Your task to perform on an android device: Go to Google maps Image 0: 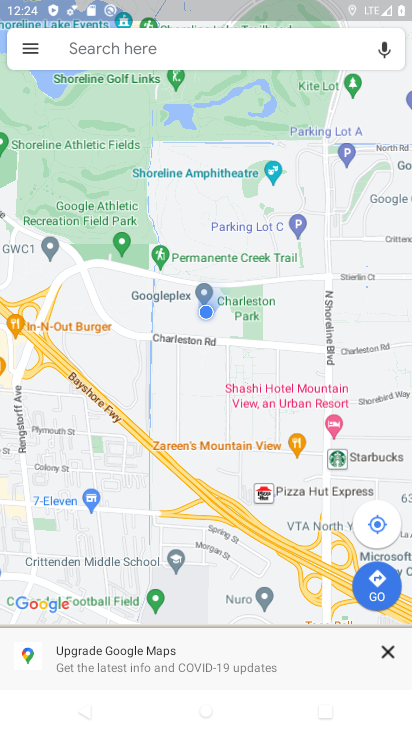
Step 0: task complete